Your task to perform on an android device: Go to Android settings Image 0: 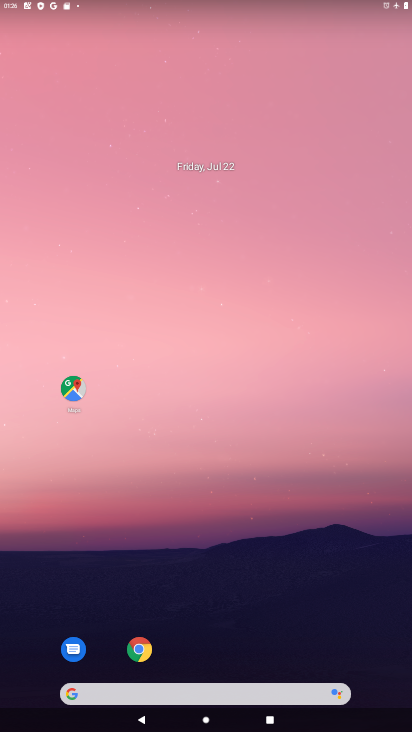
Step 0: drag from (282, 283) to (267, 3)
Your task to perform on an android device: Go to Android settings Image 1: 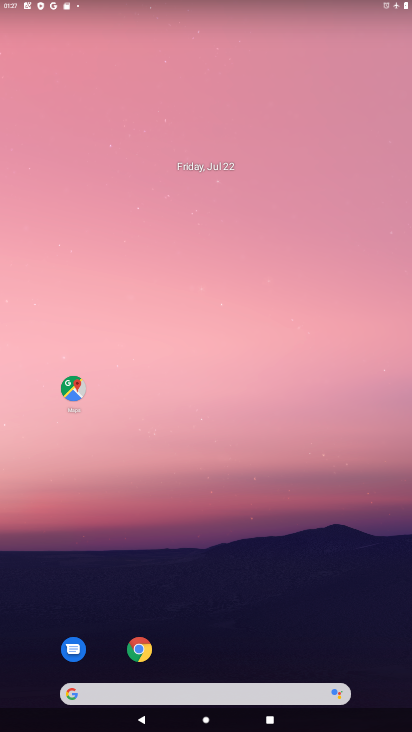
Step 1: drag from (244, 581) to (211, 35)
Your task to perform on an android device: Go to Android settings Image 2: 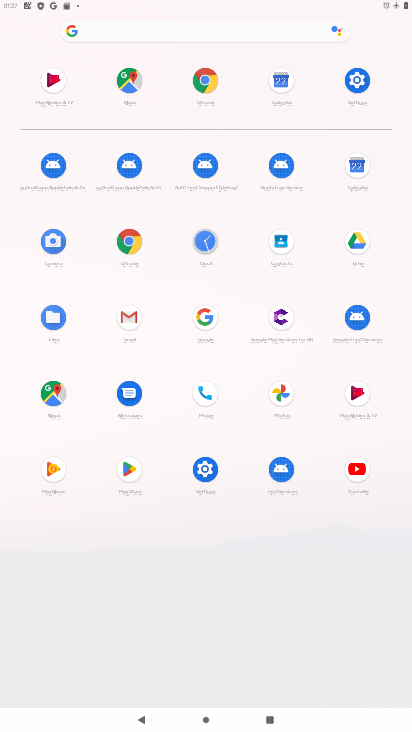
Step 2: click (360, 78)
Your task to perform on an android device: Go to Android settings Image 3: 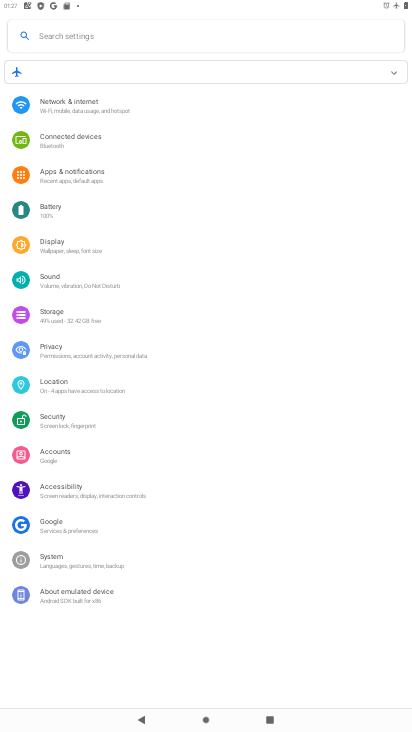
Step 3: task complete